Your task to perform on an android device: check storage Image 0: 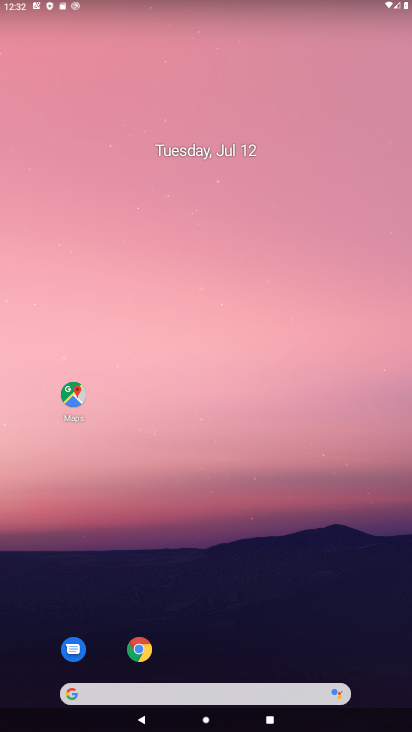
Step 0: drag from (355, 602) to (198, 113)
Your task to perform on an android device: check storage Image 1: 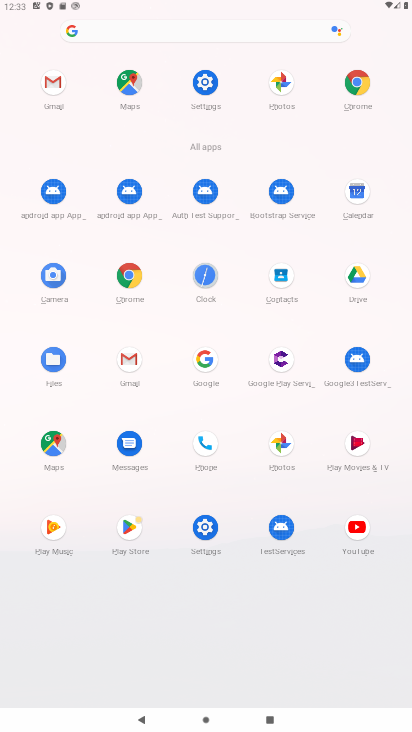
Step 1: click (206, 79)
Your task to perform on an android device: check storage Image 2: 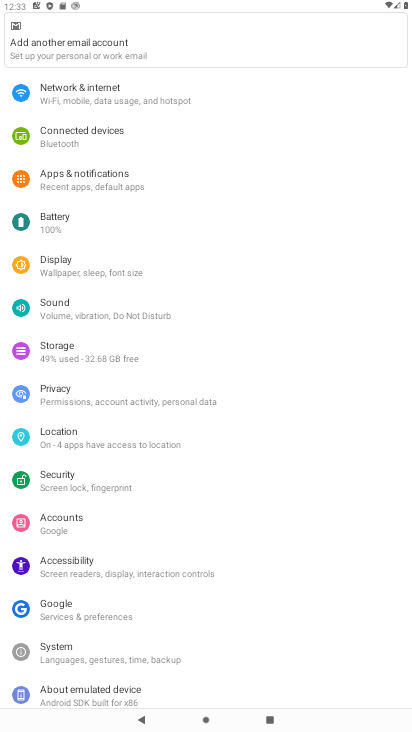
Step 2: click (50, 351)
Your task to perform on an android device: check storage Image 3: 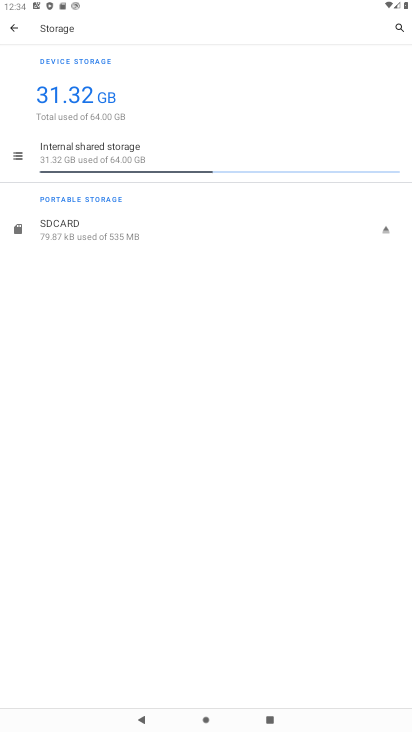
Step 3: click (125, 145)
Your task to perform on an android device: check storage Image 4: 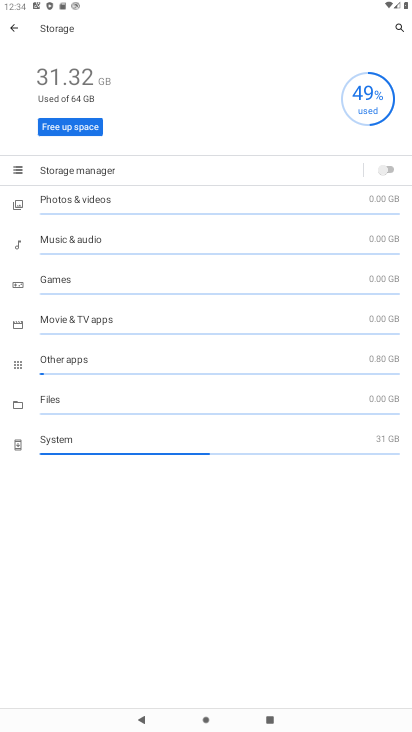
Step 4: task complete